Your task to perform on an android device: Go to Yahoo.com Image 0: 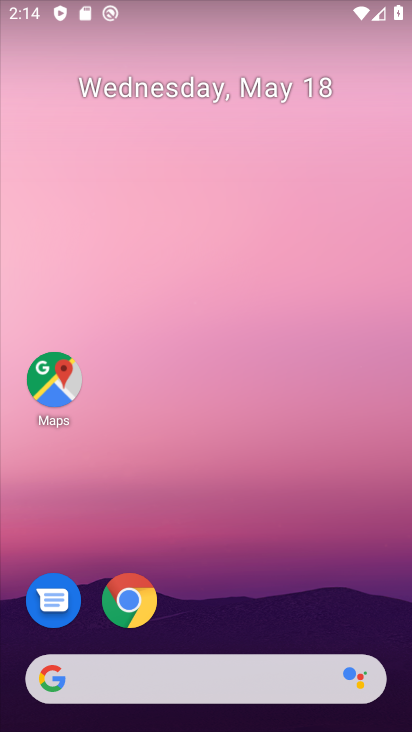
Step 0: press home button
Your task to perform on an android device: Go to Yahoo.com Image 1: 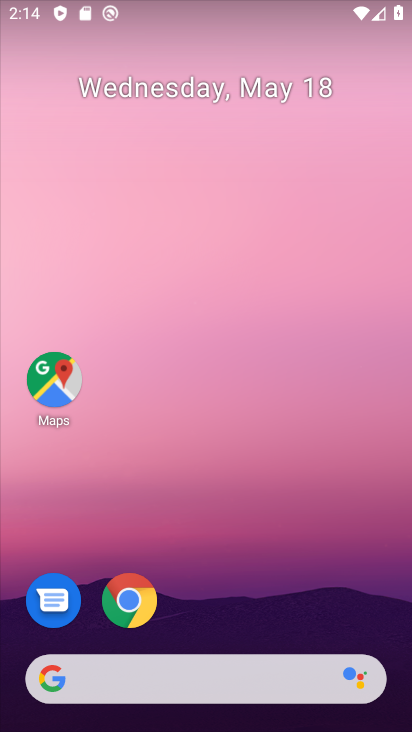
Step 1: click (136, 608)
Your task to perform on an android device: Go to Yahoo.com Image 2: 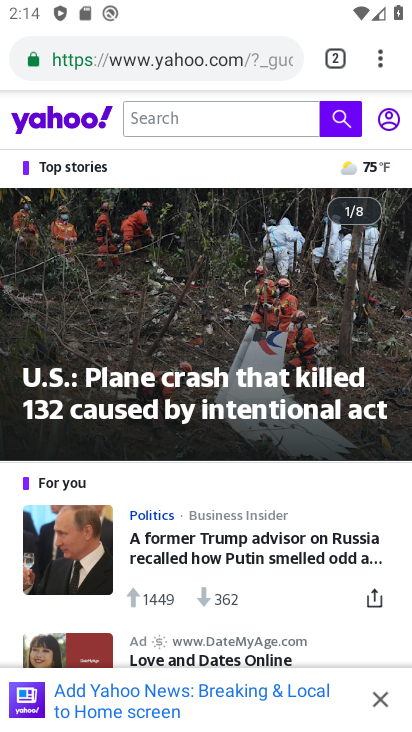
Step 2: task complete